Your task to perform on an android device: Go to Amazon Image 0: 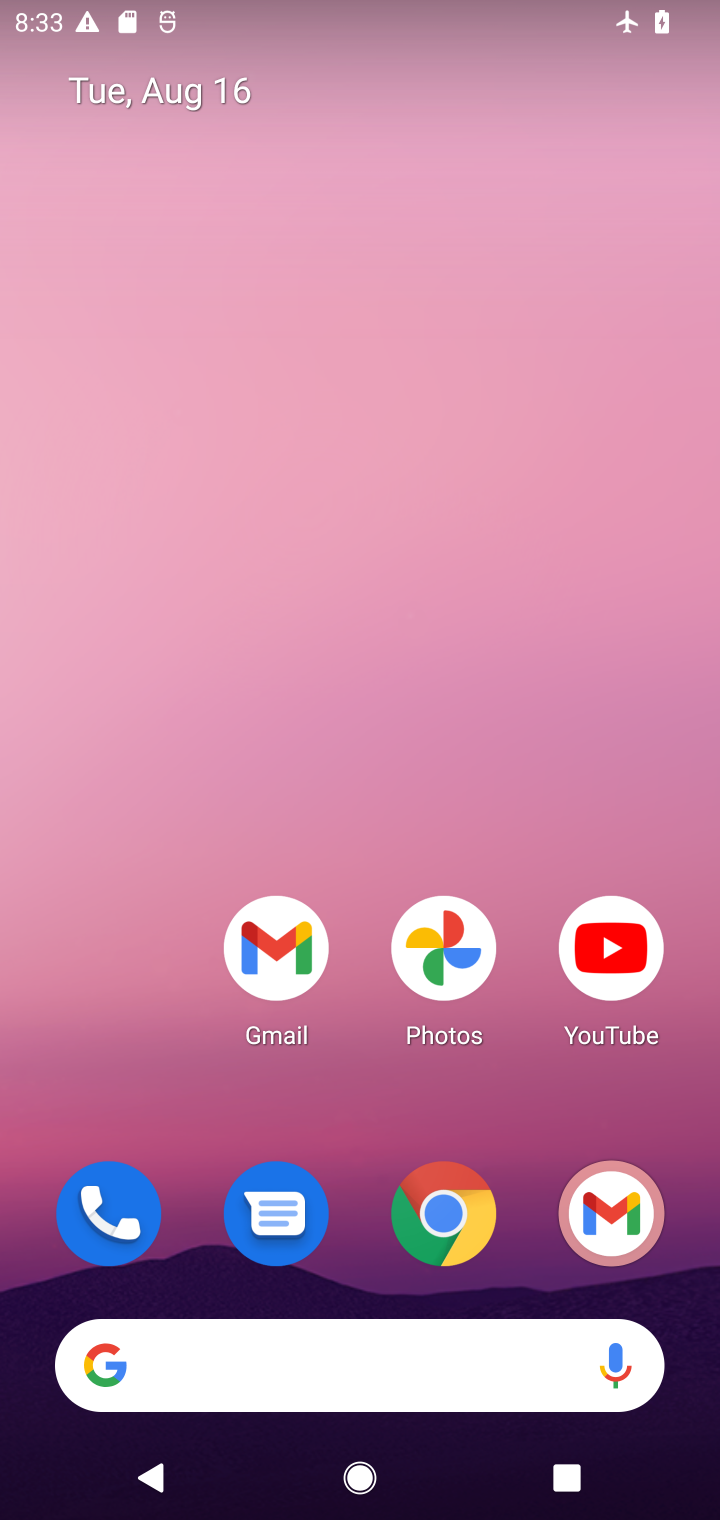
Step 0: click (453, 1202)
Your task to perform on an android device: Go to Amazon Image 1: 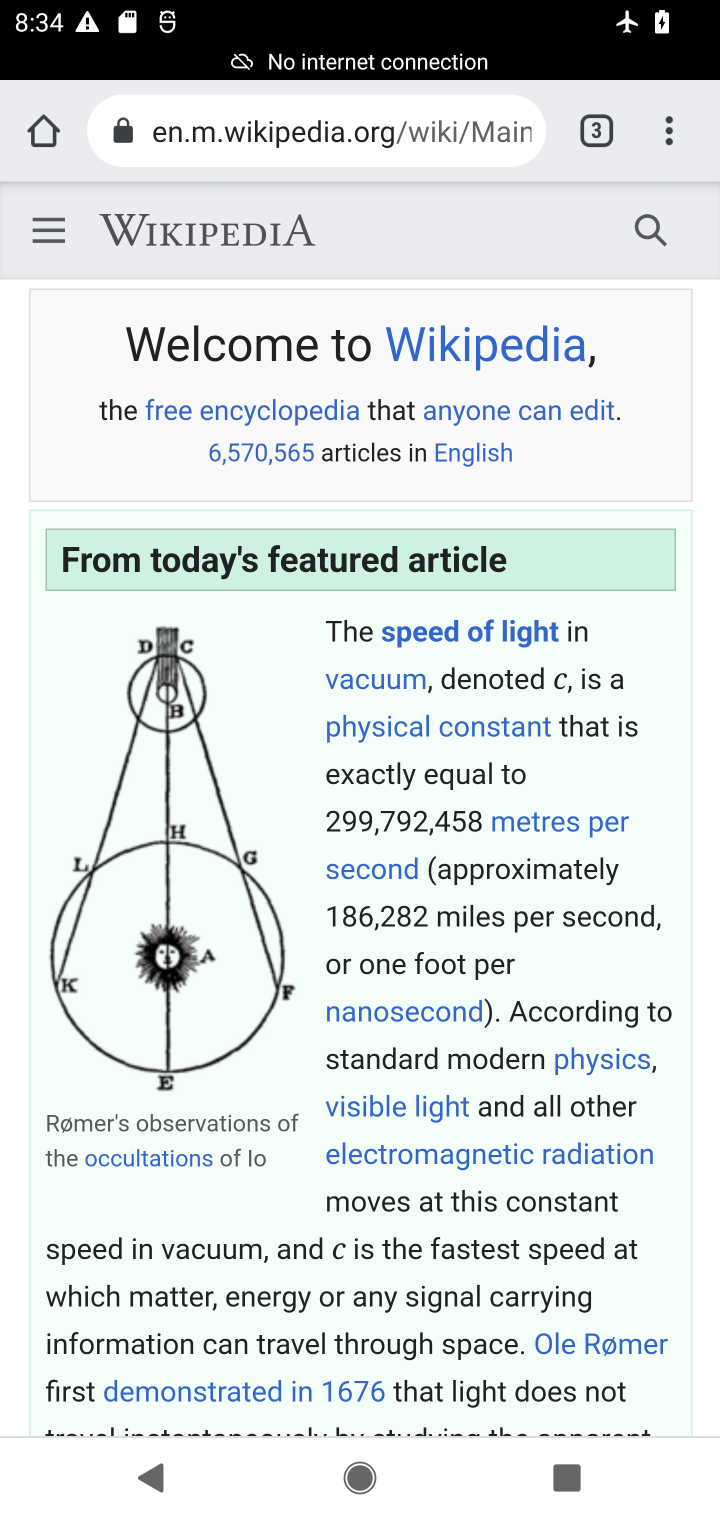
Step 1: click (657, 153)
Your task to perform on an android device: Go to Amazon Image 2: 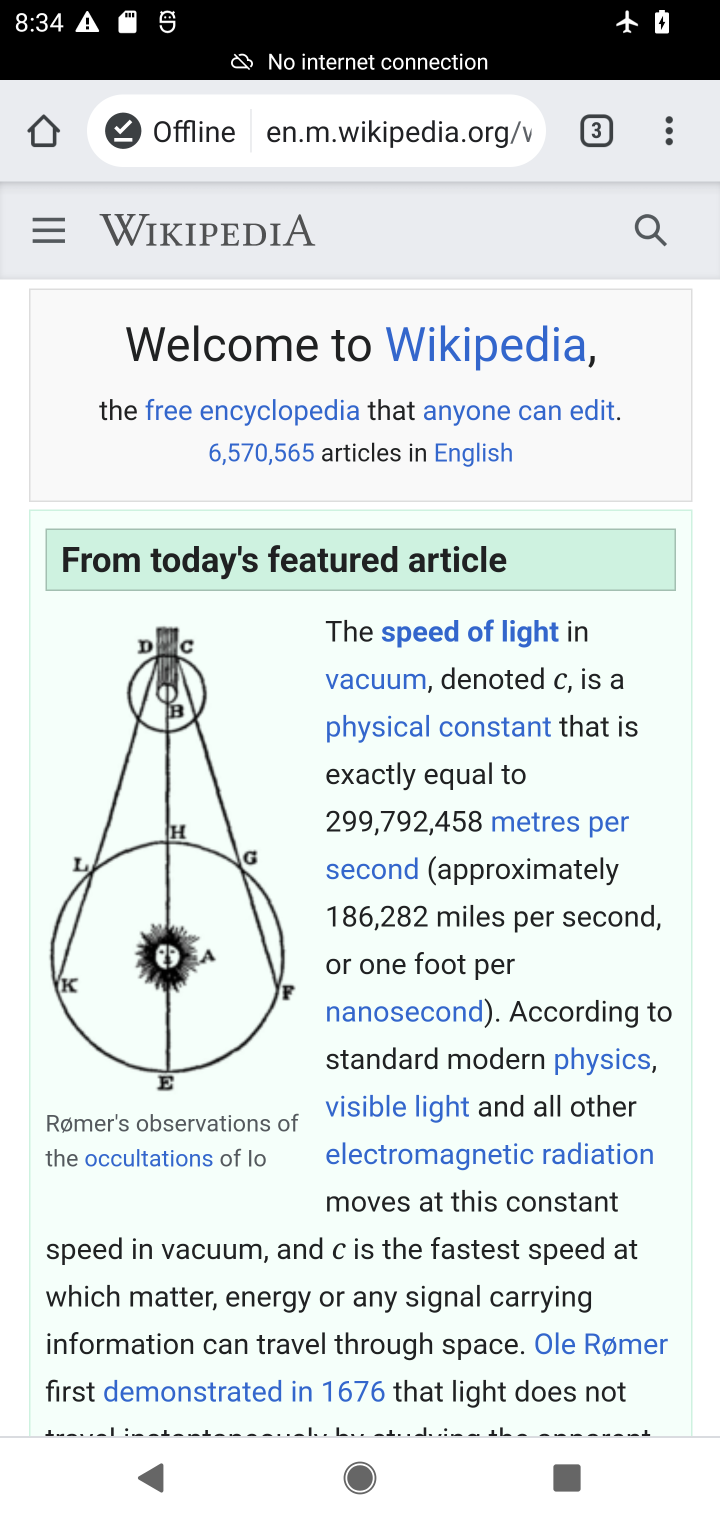
Step 2: click (669, 110)
Your task to perform on an android device: Go to Amazon Image 3: 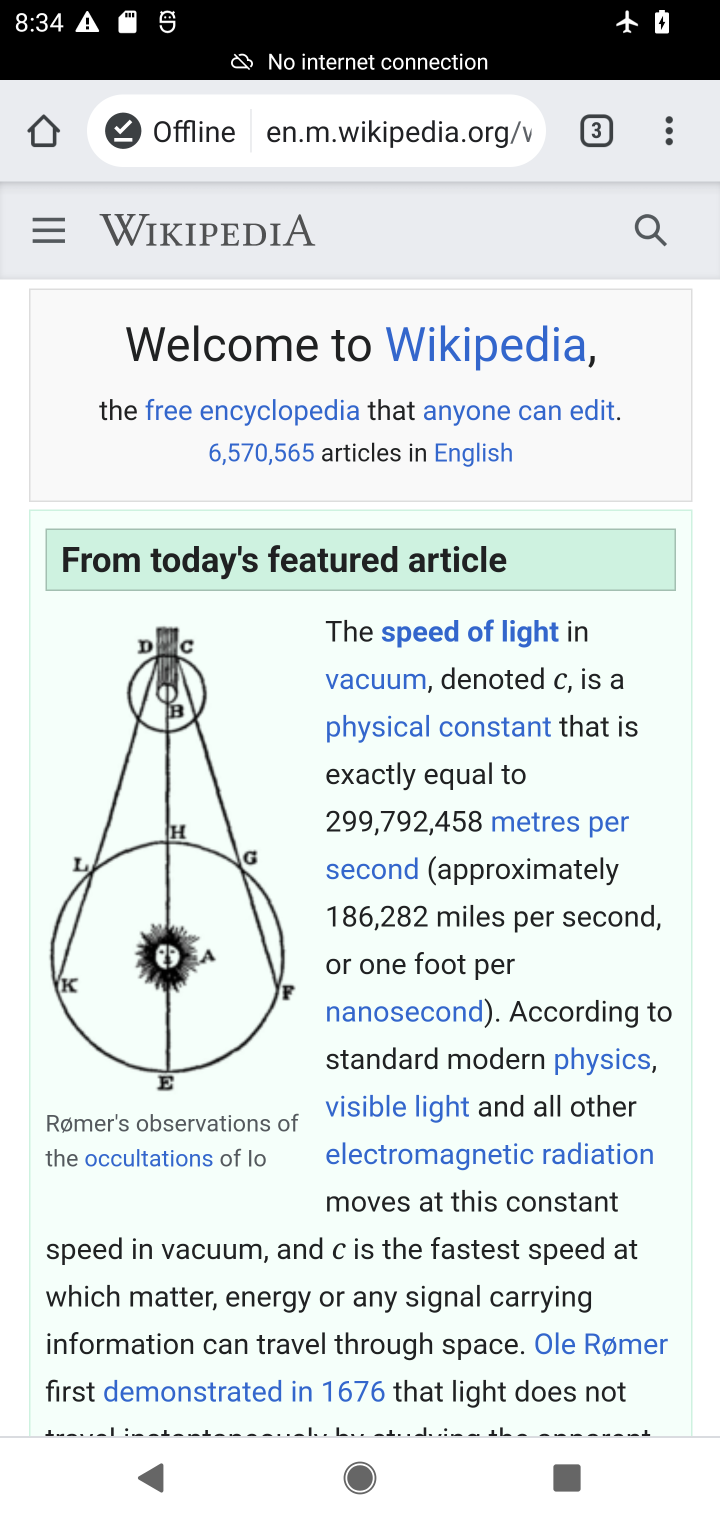
Step 3: click (665, 126)
Your task to perform on an android device: Go to Amazon Image 4: 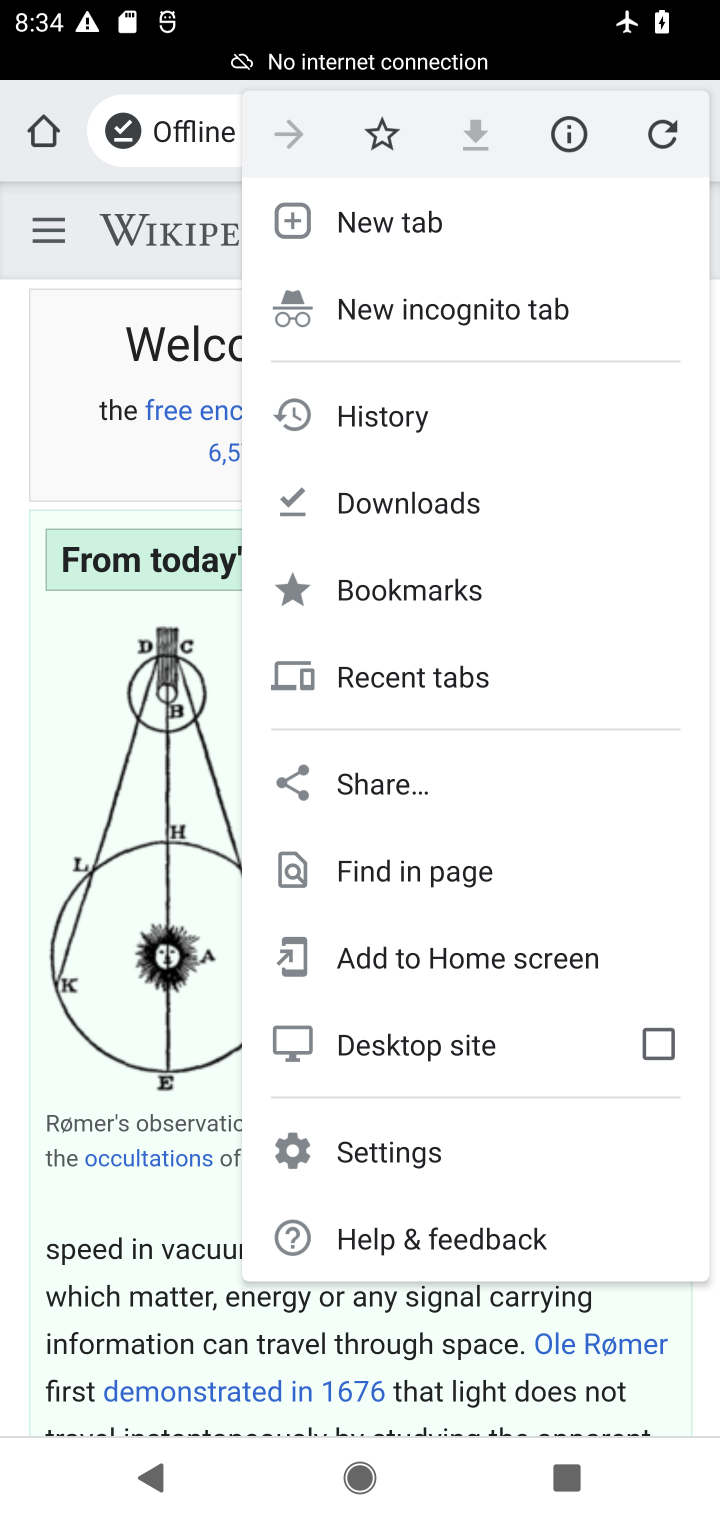
Step 4: click (371, 211)
Your task to perform on an android device: Go to Amazon Image 5: 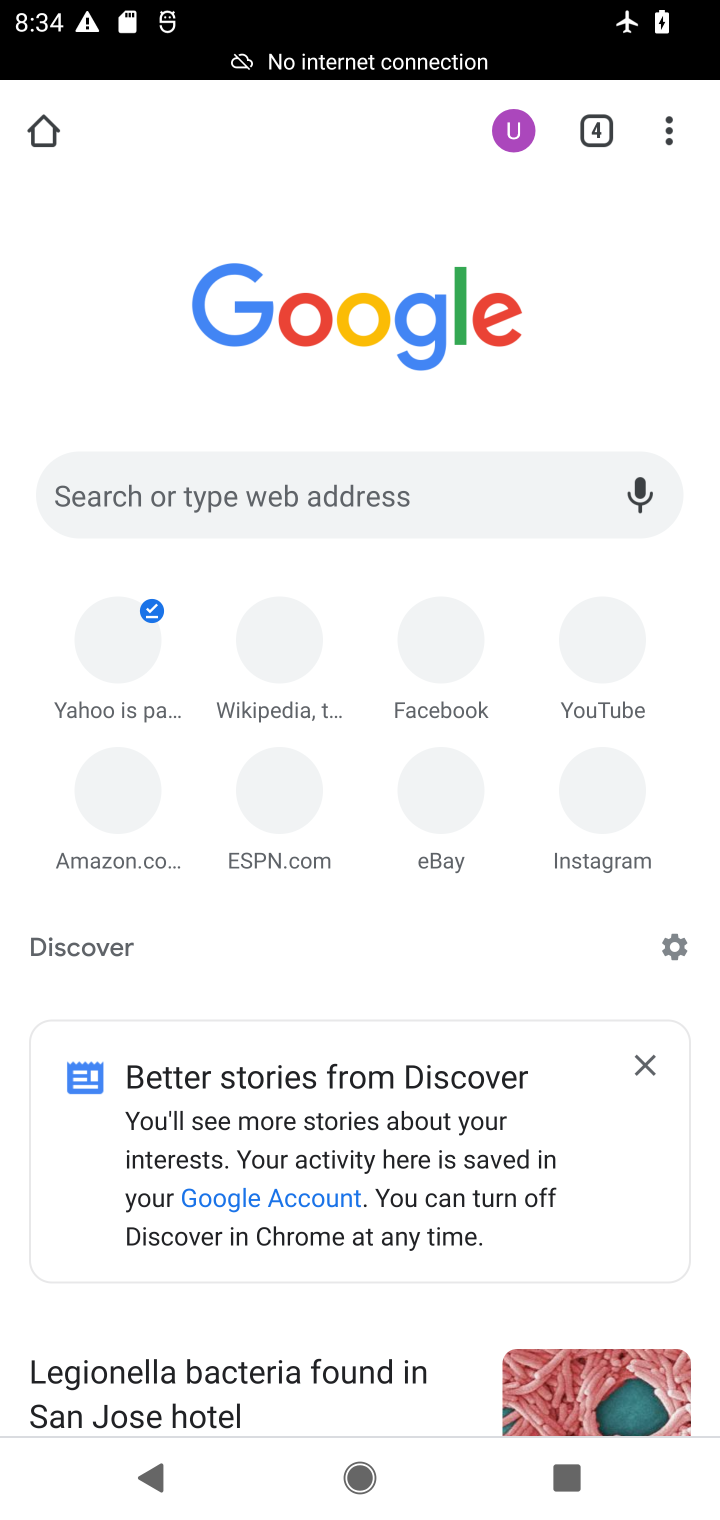
Step 5: click (111, 781)
Your task to perform on an android device: Go to Amazon Image 6: 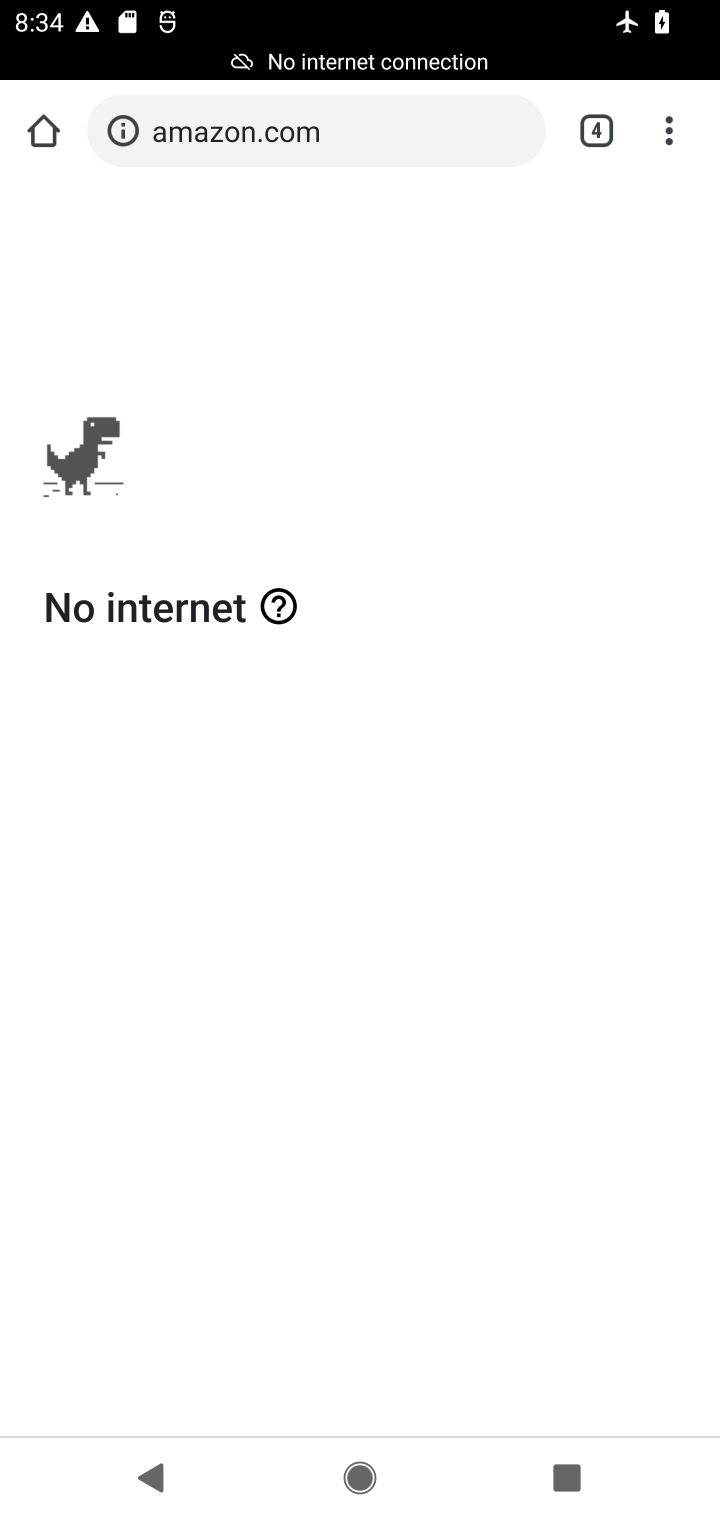
Step 6: task complete